Your task to perform on an android device: View the shopping cart on target. Search for alienware area 51 on target, select the first entry, and add it to the cart. Image 0: 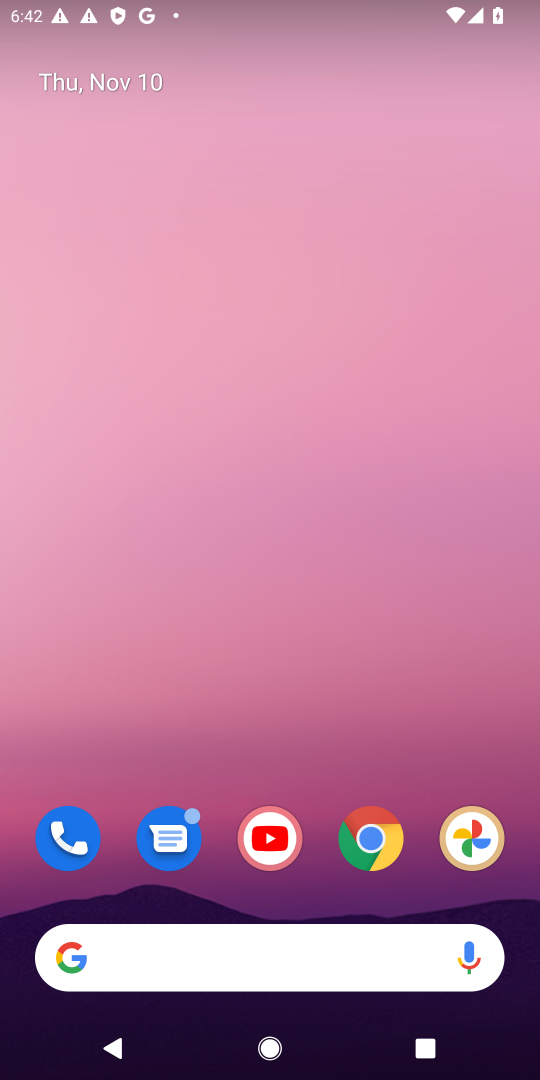
Step 0: drag from (318, 894) to (452, 46)
Your task to perform on an android device: View the shopping cart on target. Search for alienware area 51 on target, select the first entry, and add it to the cart. Image 1: 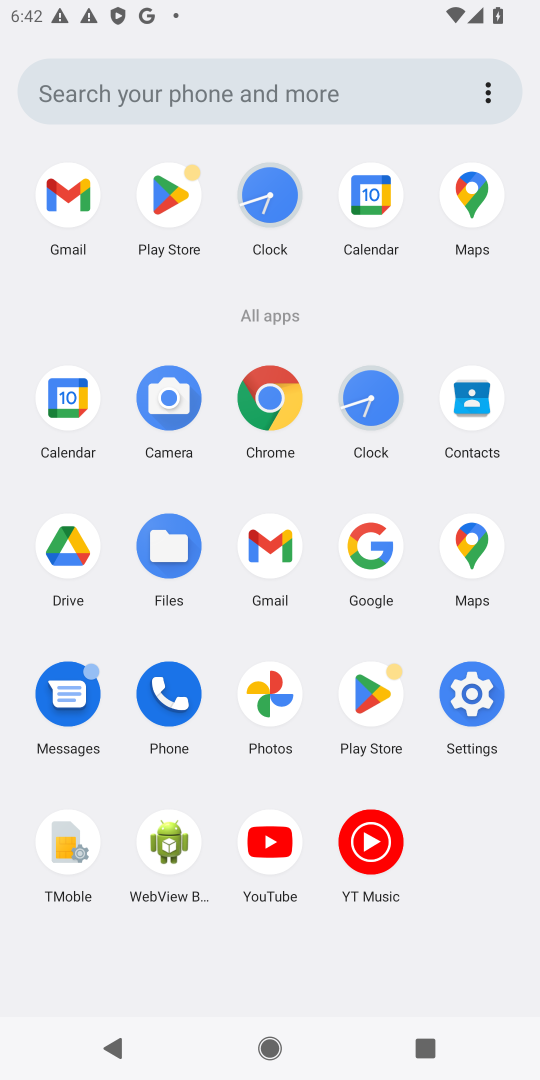
Step 1: click (284, 383)
Your task to perform on an android device: View the shopping cart on target. Search for alienware area 51 on target, select the first entry, and add it to the cart. Image 2: 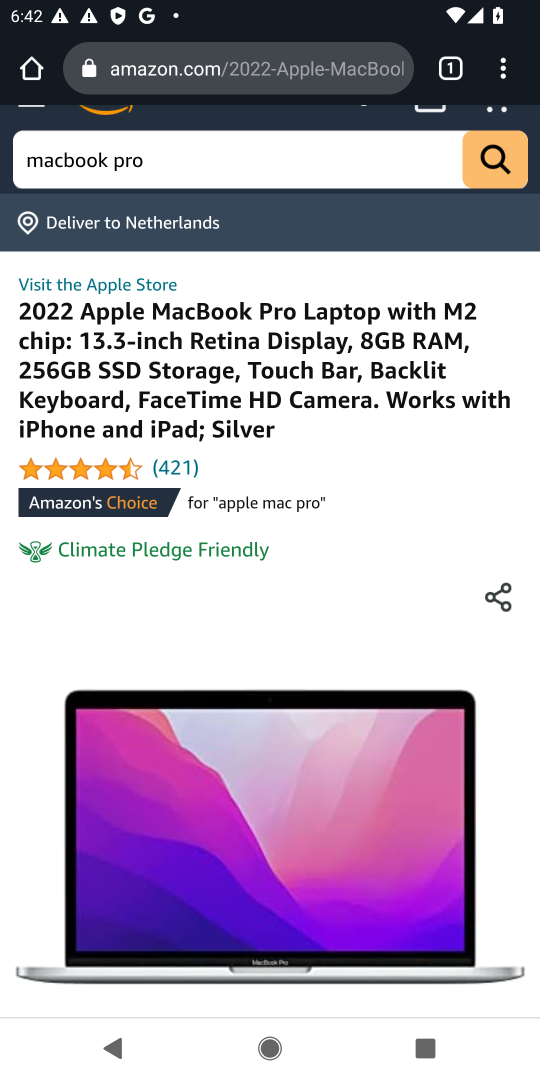
Step 2: click (251, 65)
Your task to perform on an android device: View the shopping cart on target. Search for alienware area 51 on target, select the first entry, and add it to the cart. Image 3: 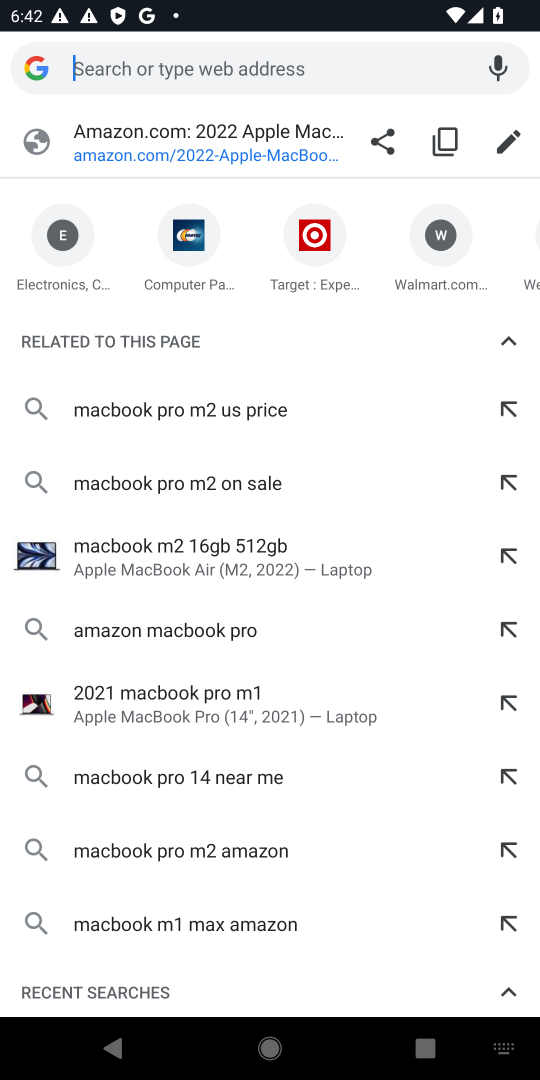
Step 3: type "target.com"
Your task to perform on an android device: View the shopping cart on target. Search for alienware area 51 on target, select the first entry, and add it to the cart. Image 4: 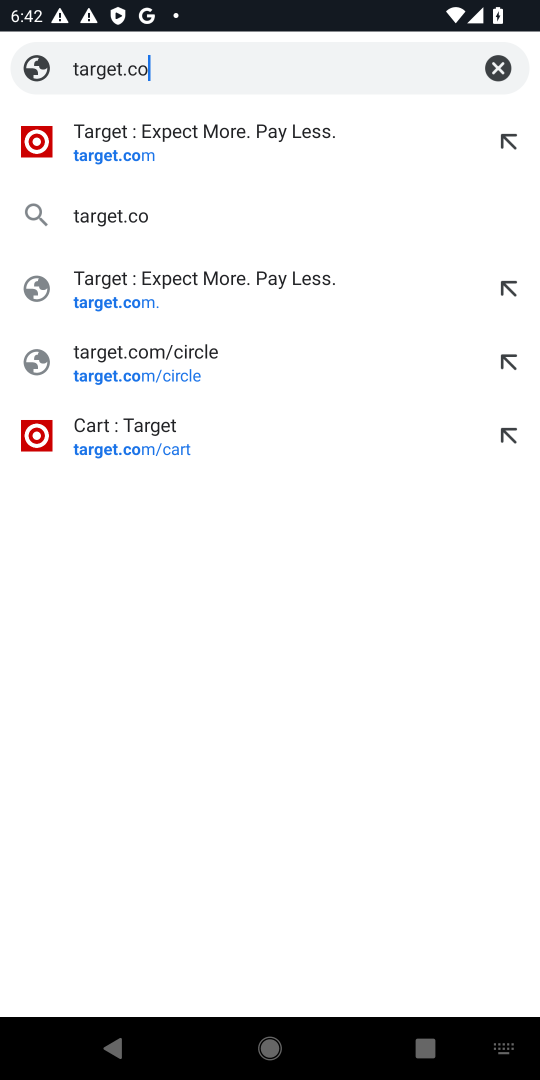
Step 4: press enter
Your task to perform on an android device: View the shopping cart on target. Search for alienware area 51 on target, select the first entry, and add it to the cart. Image 5: 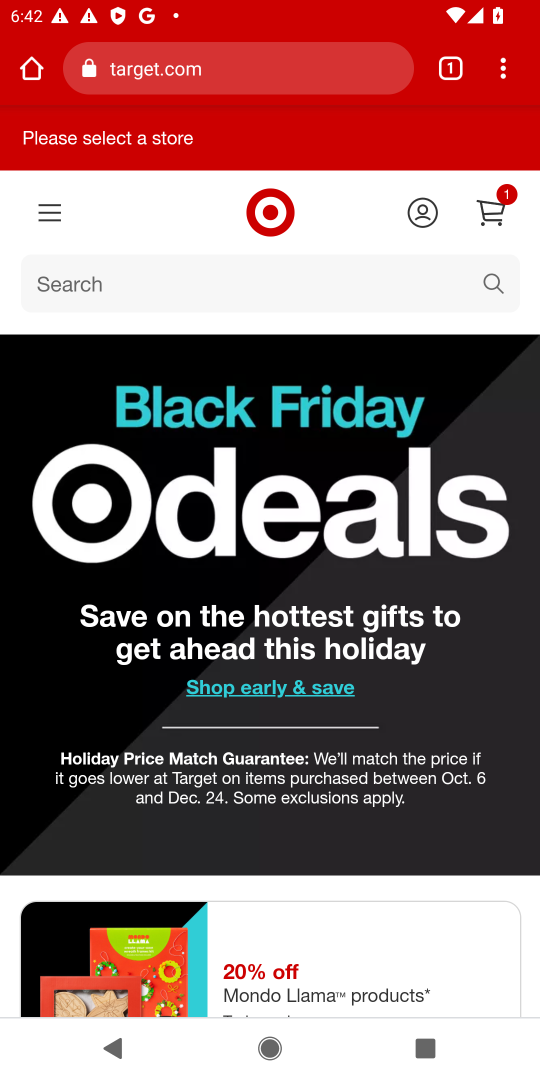
Step 5: click (493, 213)
Your task to perform on an android device: View the shopping cart on target. Search for alienware area 51 on target, select the first entry, and add it to the cart. Image 6: 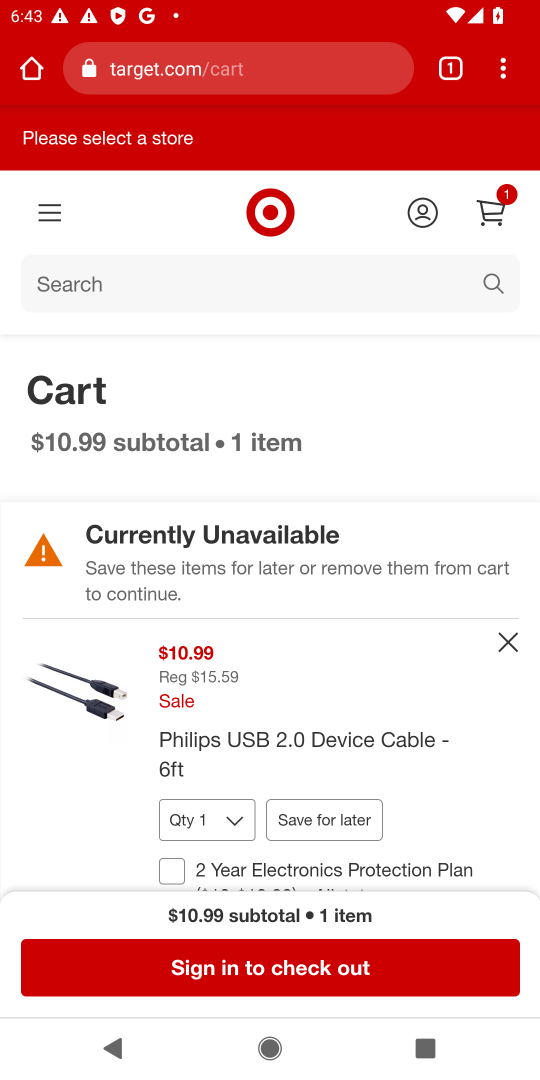
Step 6: click (234, 286)
Your task to perform on an android device: View the shopping cart on target. Search for alienware area 51 on target, select the first entry, and add it to the cart. Image 7: 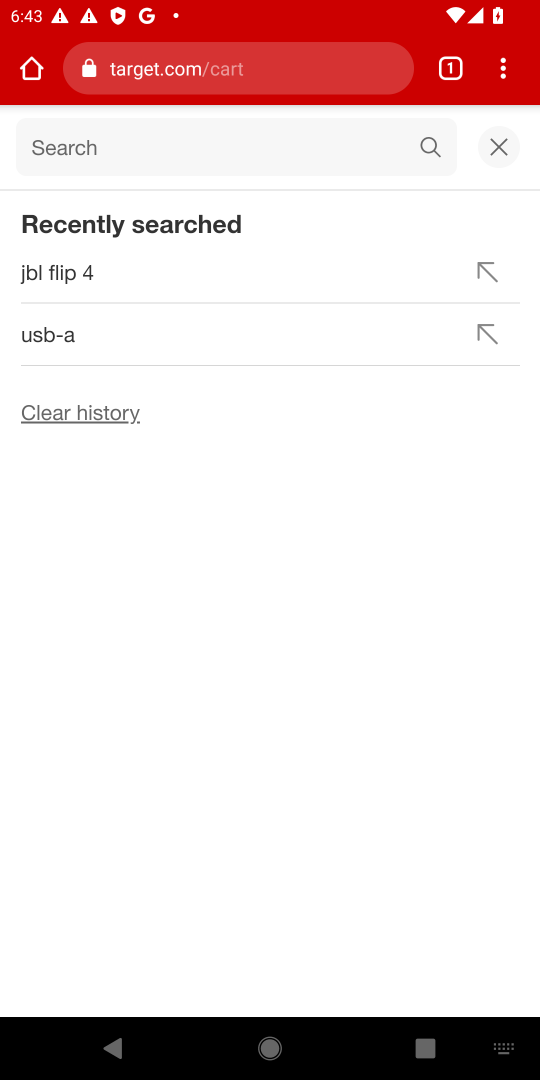
Step 7: type "alienware area 51"
Your task to perform on an android device: View the shopping cart on target. Search for alienware area 51 on target, select the first entry, and add it to the cart. Image 8: 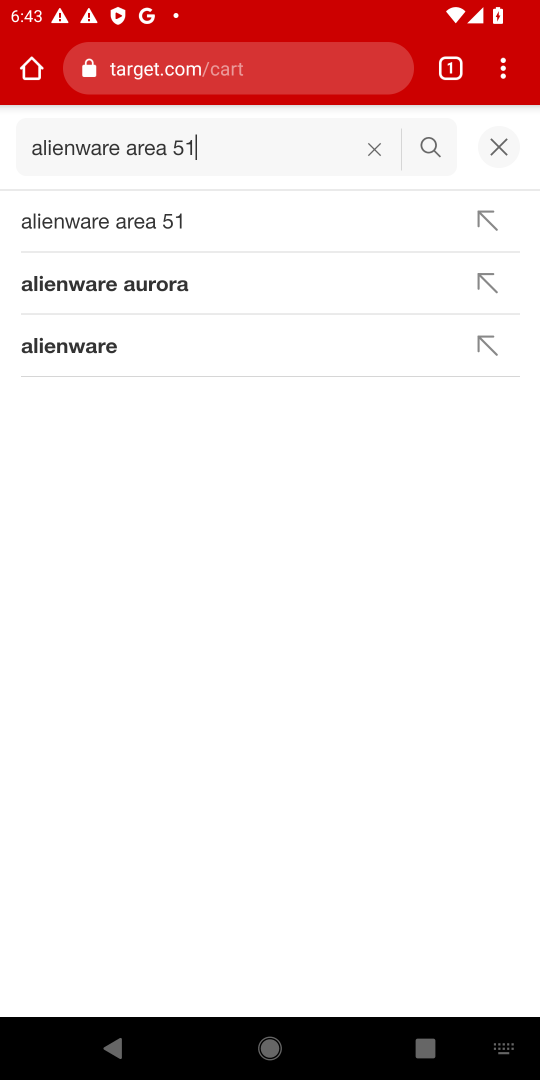
Step 8: press enter
Your task to perform on an android device: View the shopping cart on target. Search for alienware area 51 on target, select the first entry, and add it to the cart. Image 9: 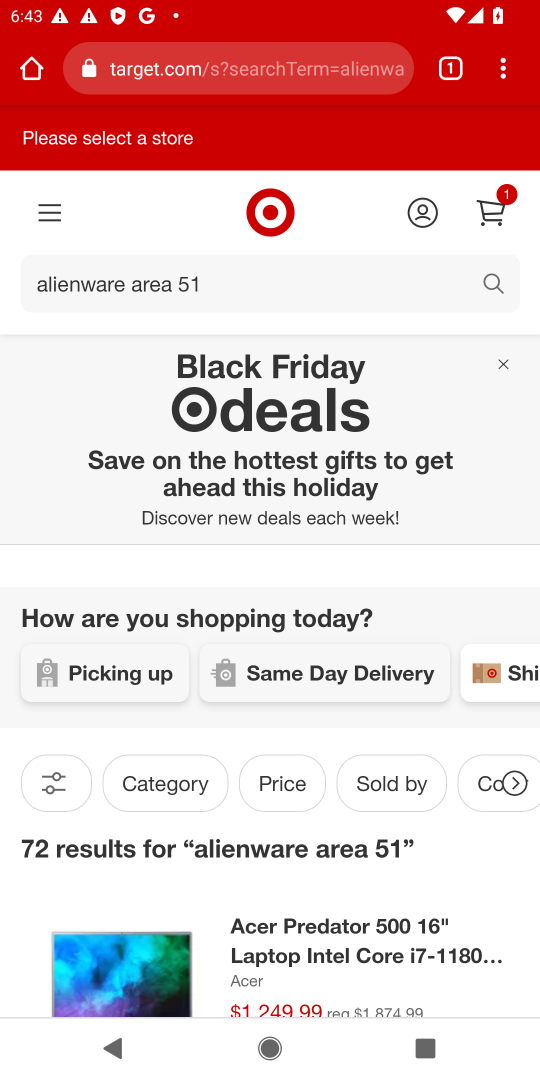
Step 9: task complete